Your task to perform on an android device: Find coffee shops on Maps Image 0: 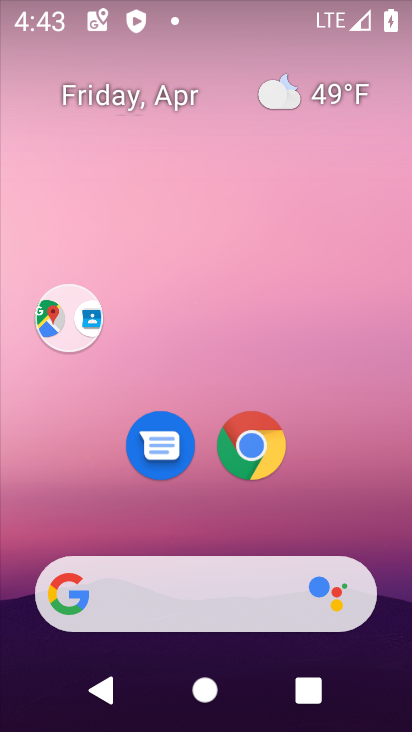
Step 0: drag from (332, 458) to (369, 67)
Your task to perform on an android device: Find coffee shops on Maps Image 1: 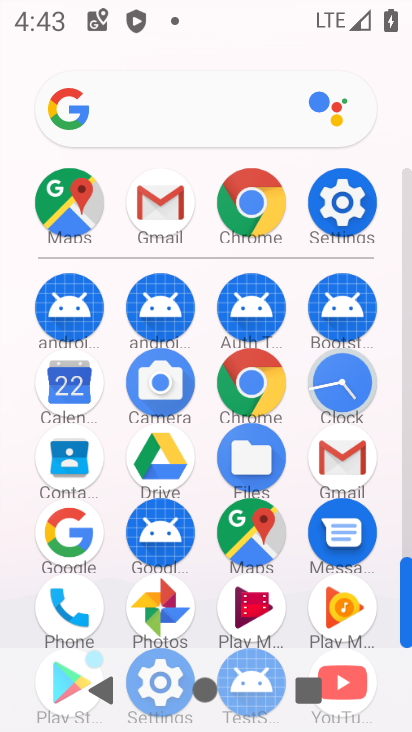
Step 1: click (241, 529)
Your task to perform on an android device: Find coffee shops on Maps Image 2: 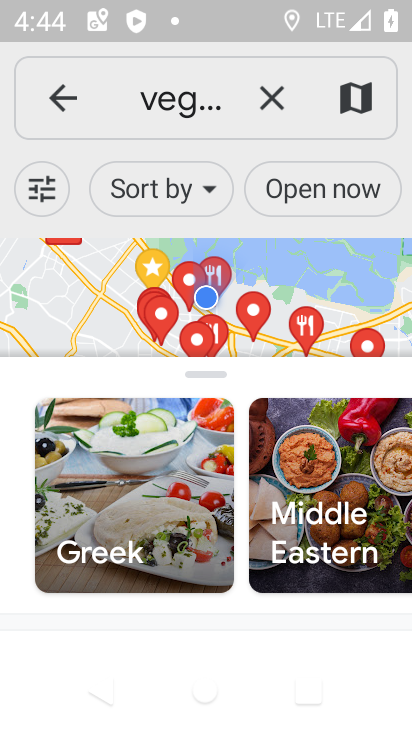
Step 2: click (220, 103)
Your task to perform on an android device: Find coffee shops on Maps Image 3: 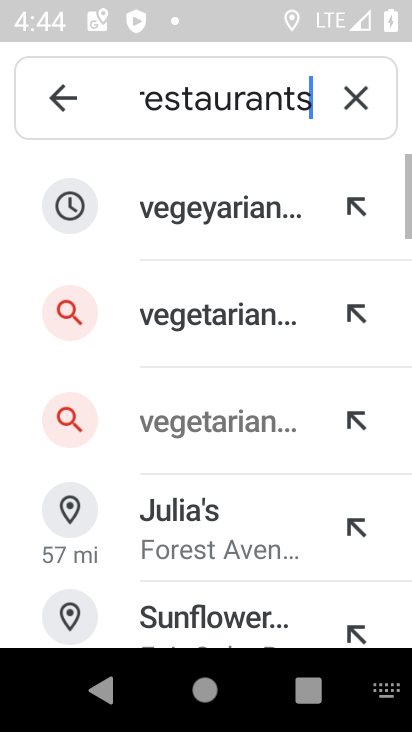
Step 3: click (359, 91)
Your task to perform on an android device: Find coffee shops on Maps Image 4: 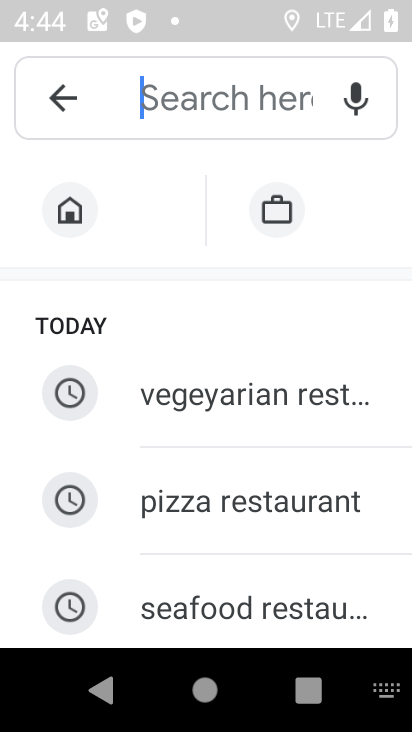
Step 4: type "coffee shops"
Your task to perform on an android device: Find coffee shops on Maps Image 5: 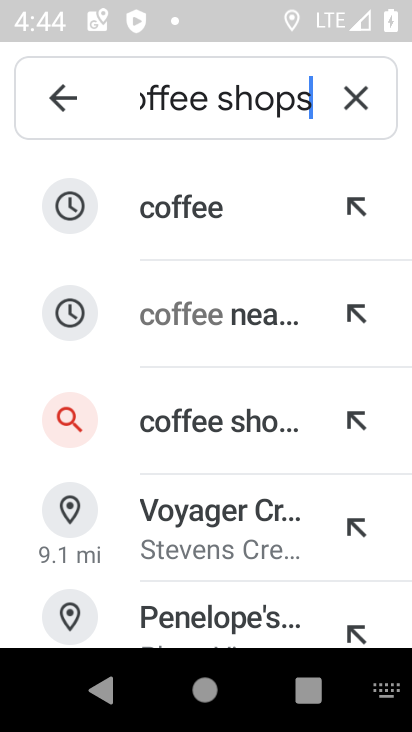
Step 5: press enter
Your task to perform on an android device: Find coffee shops on Maps Image 6: 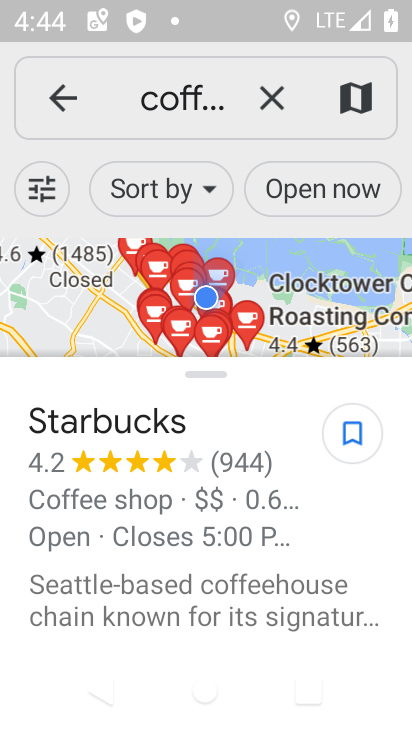
Step 6: task complete